Your task to perform on an android device: Find coffee shops on Maps Image 0: 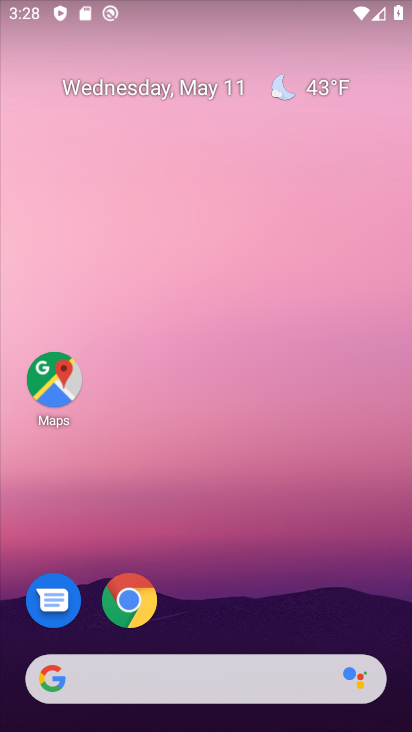
Step 0: click (52, 386)
Your task to perform on an android device: Find coffee shops on Maps Image 1: 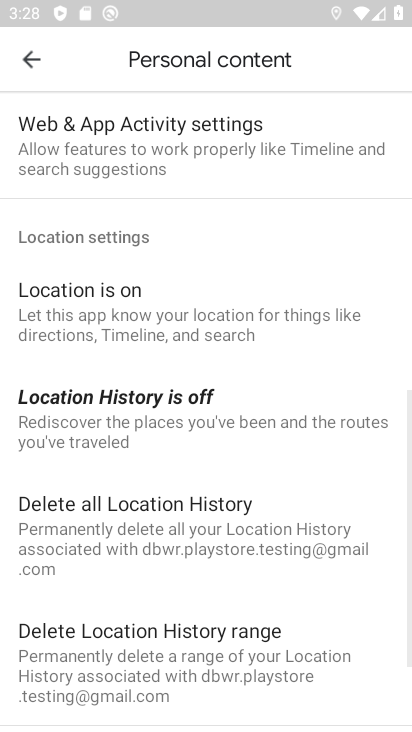
Step 1: click (36, 64)
Your task to perform on an android device: Find coffee shops on Maps Image 2: 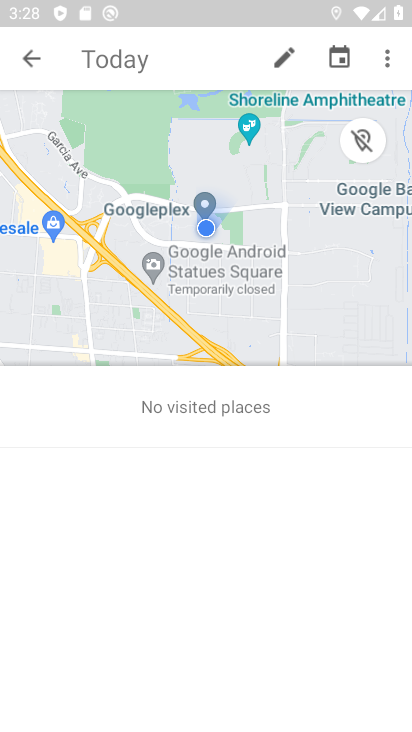
Step 2: click (36, 64)
Your task to perform on an android device: Find coffee shops on Maps Image 3: 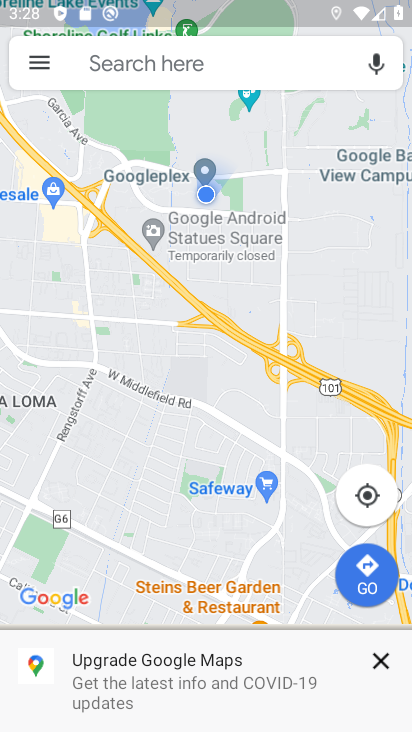
Step 3: click (118, 60)
Your task to perform on an android device: Find coffee shops on Maps Image 4: 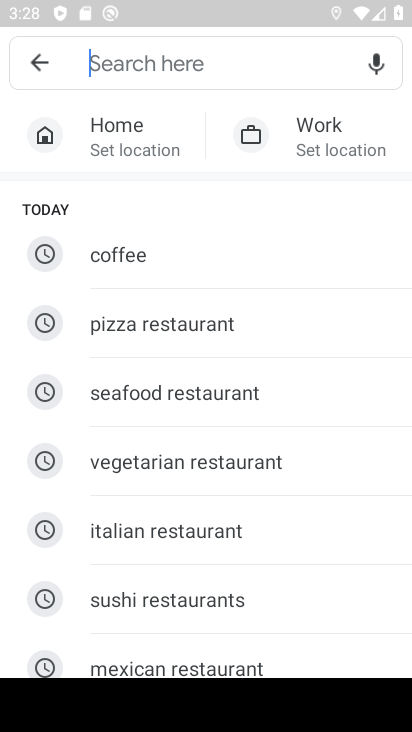
Step 4: type "coffee shops"
Your task to perform on an android device: Find coffee shops on Maps Image 5: 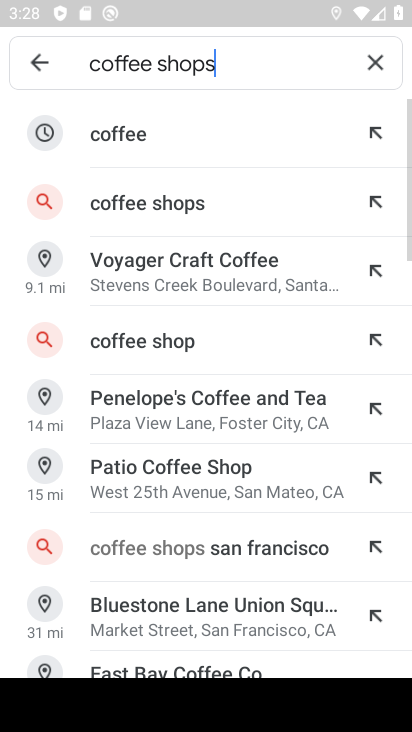
Step 5: click (136, 207)
Your task to perform on an android device: Find coffee shops on Maps Image 6: 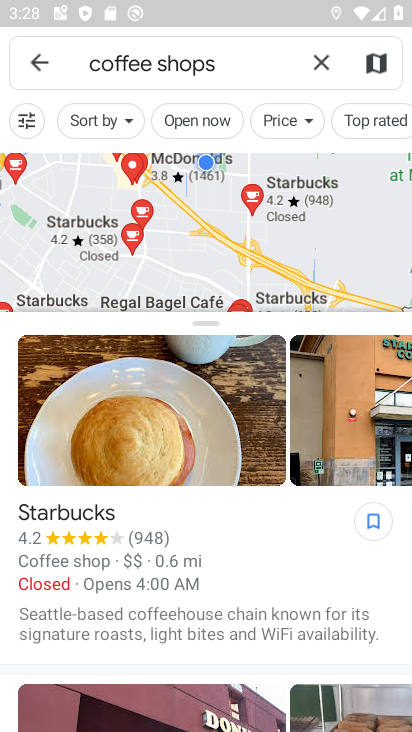
Step 6: task complete